Your task to perform on an android device: change the upload size in google photos Image 0: 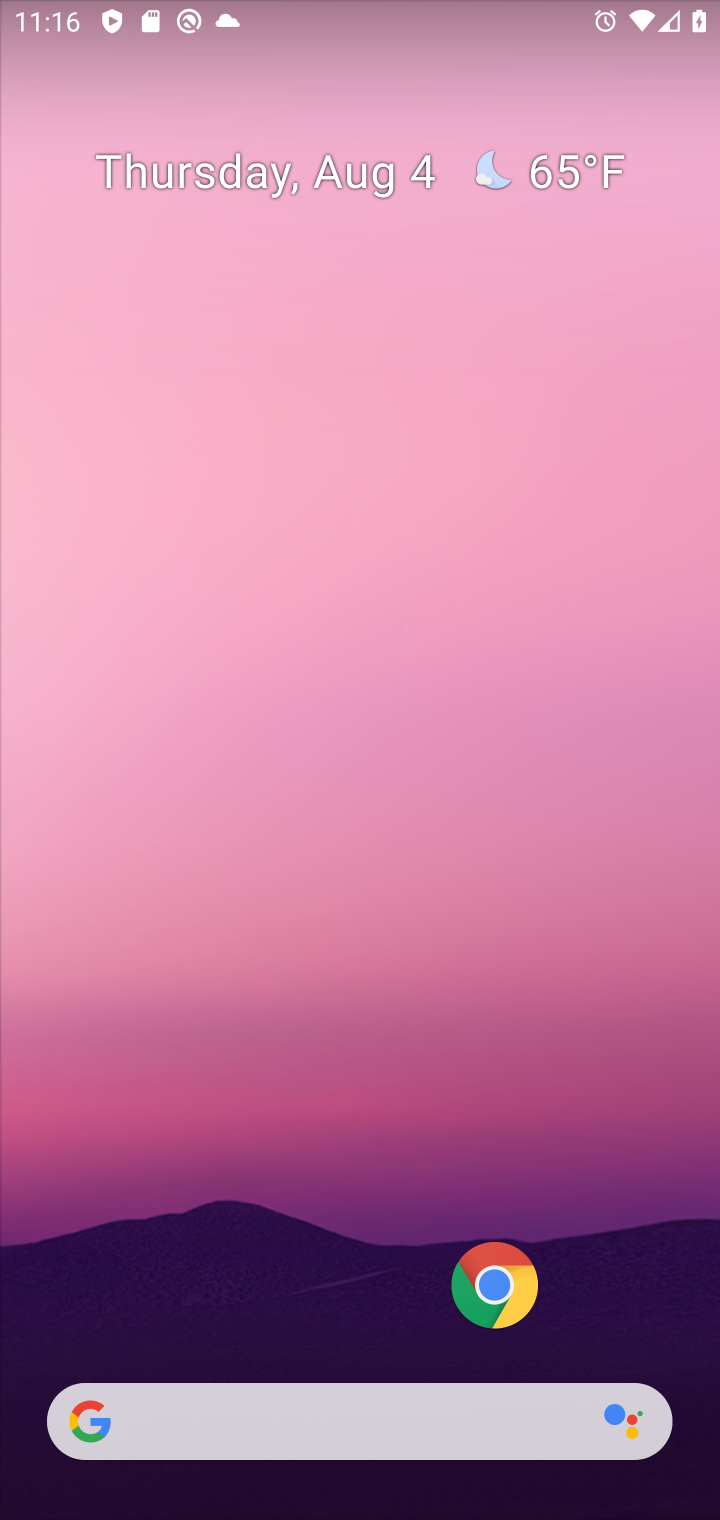
Step 0: drag from (241, 1245) to (332, 513)
Your task to perform on an android device: change the upload size in google photos Image 1: 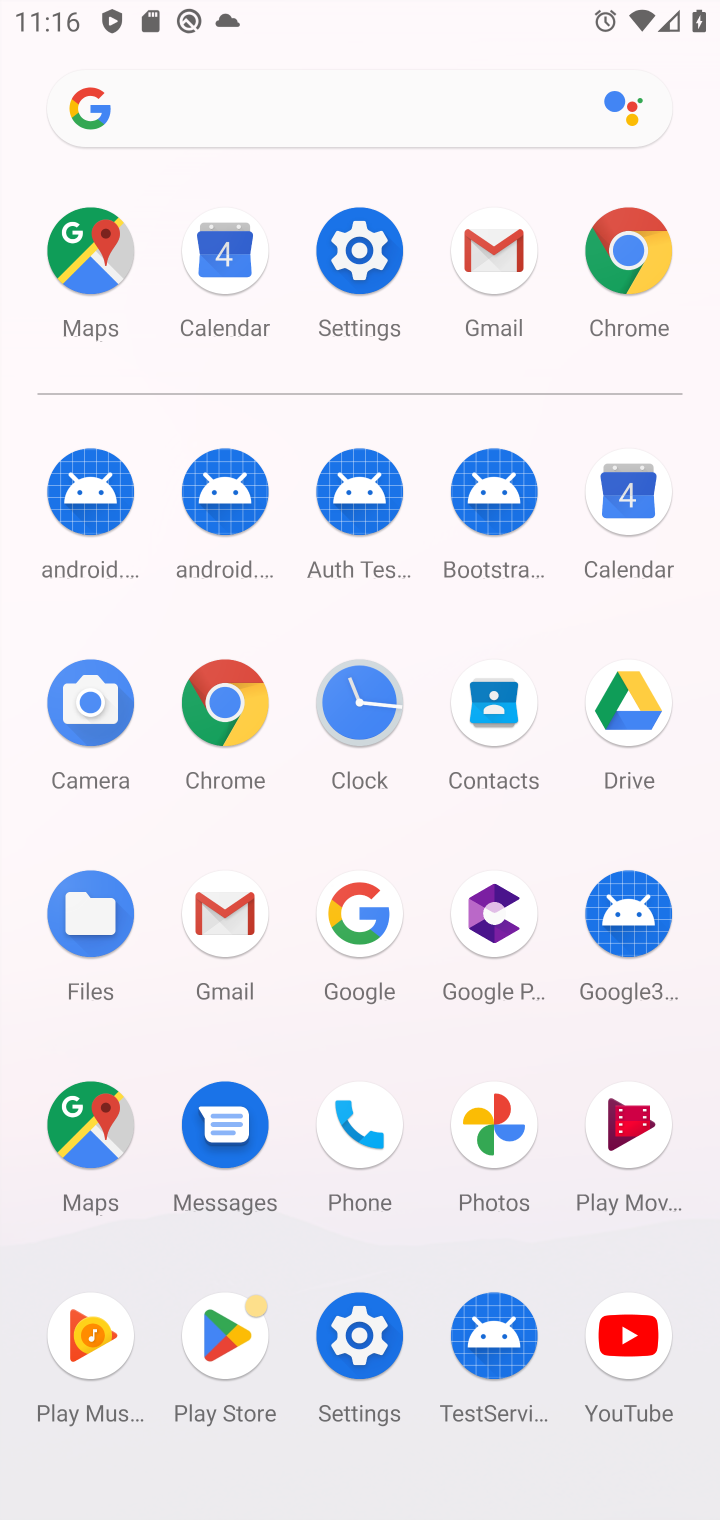
Step 1: click (482, 1126)
Your task to perform on an android device: change the upload size in google photos Image 2: 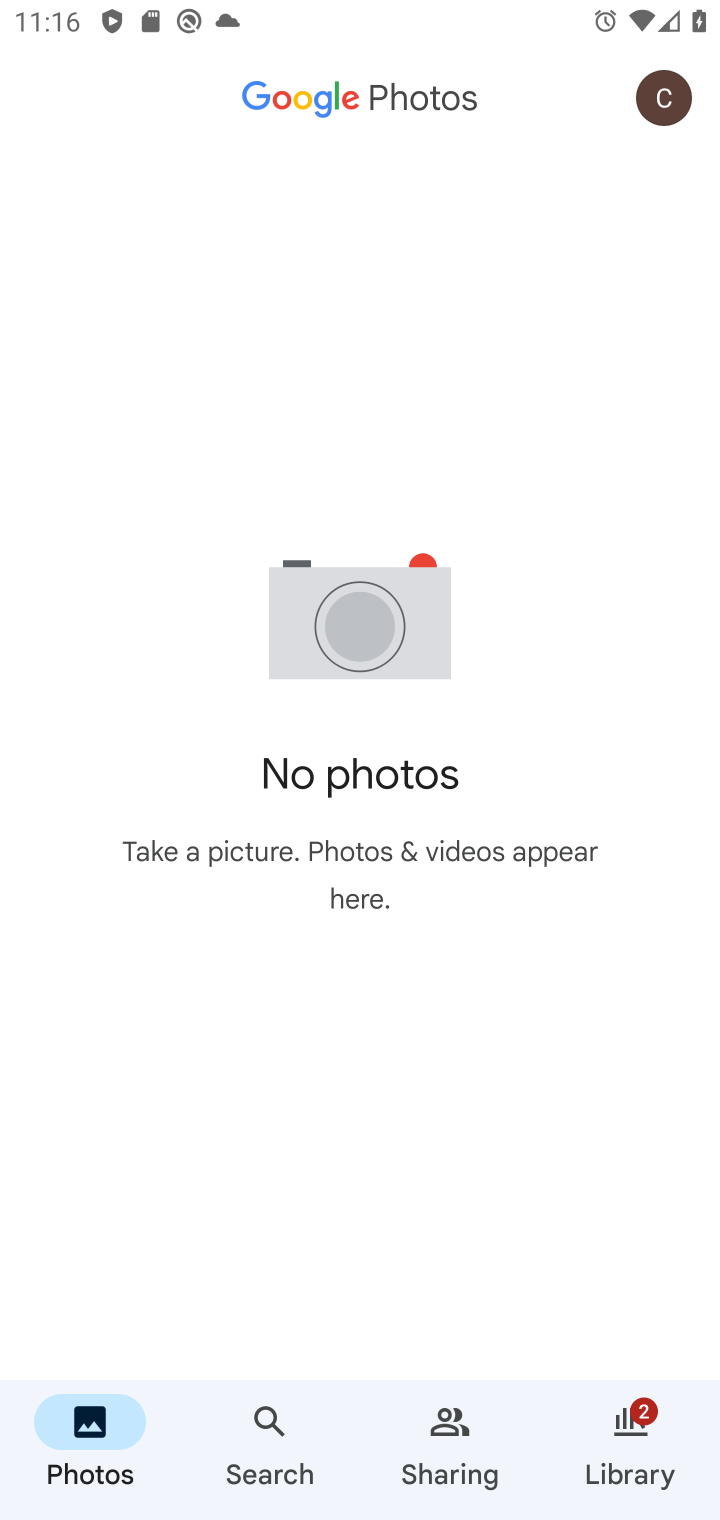
Step 2: click (676, 103)
Your task to perform on an android device: change the upload size in google photos Image 3: 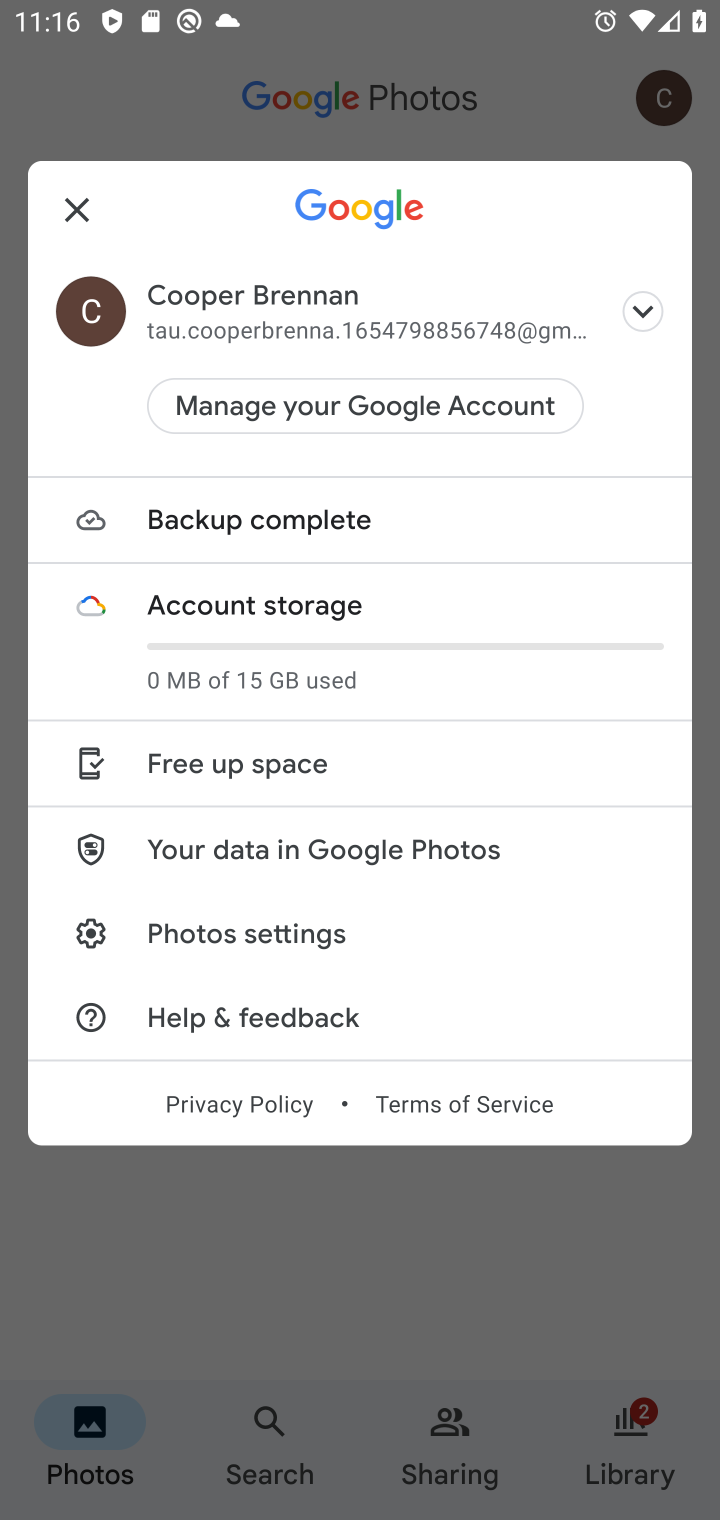
Step 3: click (211, 952)
Your task to perform on an android device: change the upload size in google photos Image 4: 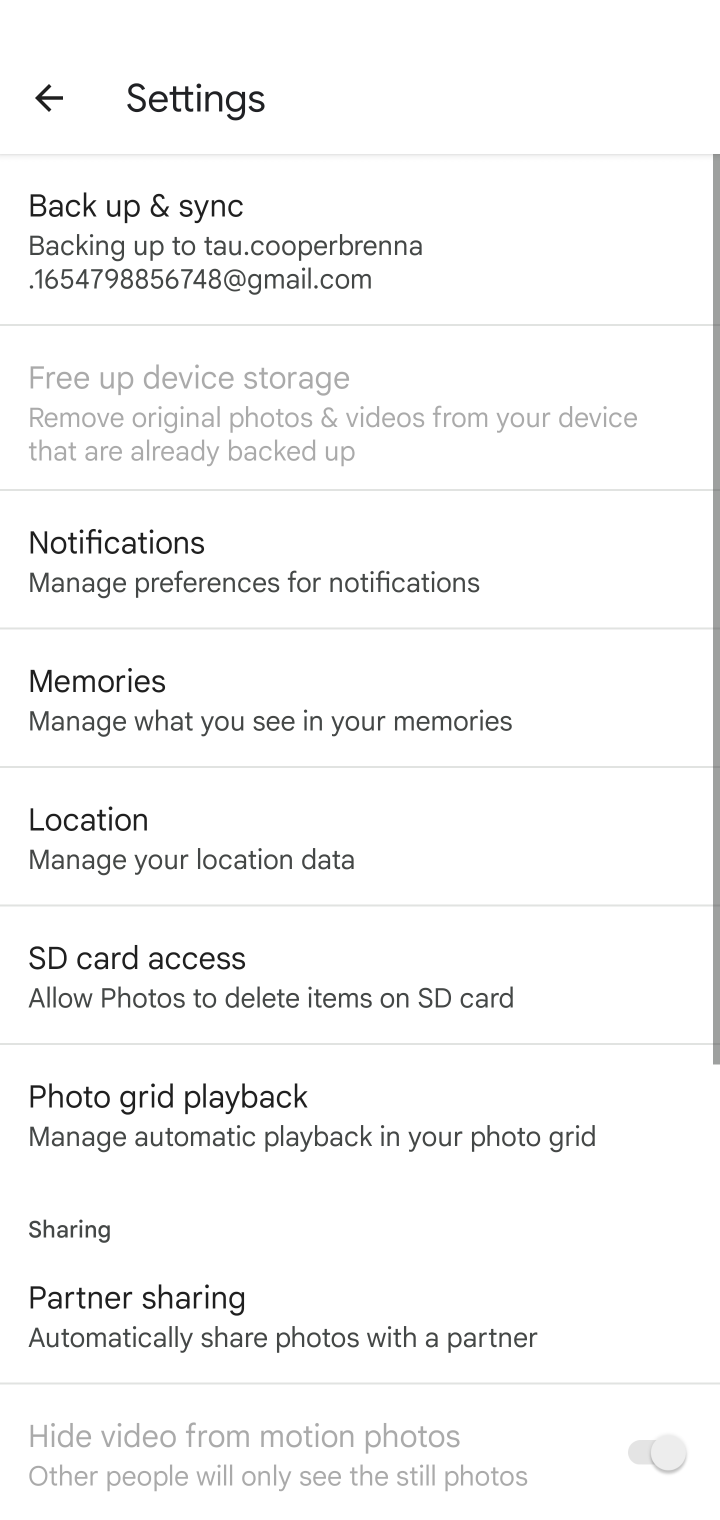
Step 4: click (251, 196)
Your task to perform on an android device: change the upload size in google photos Image 5: 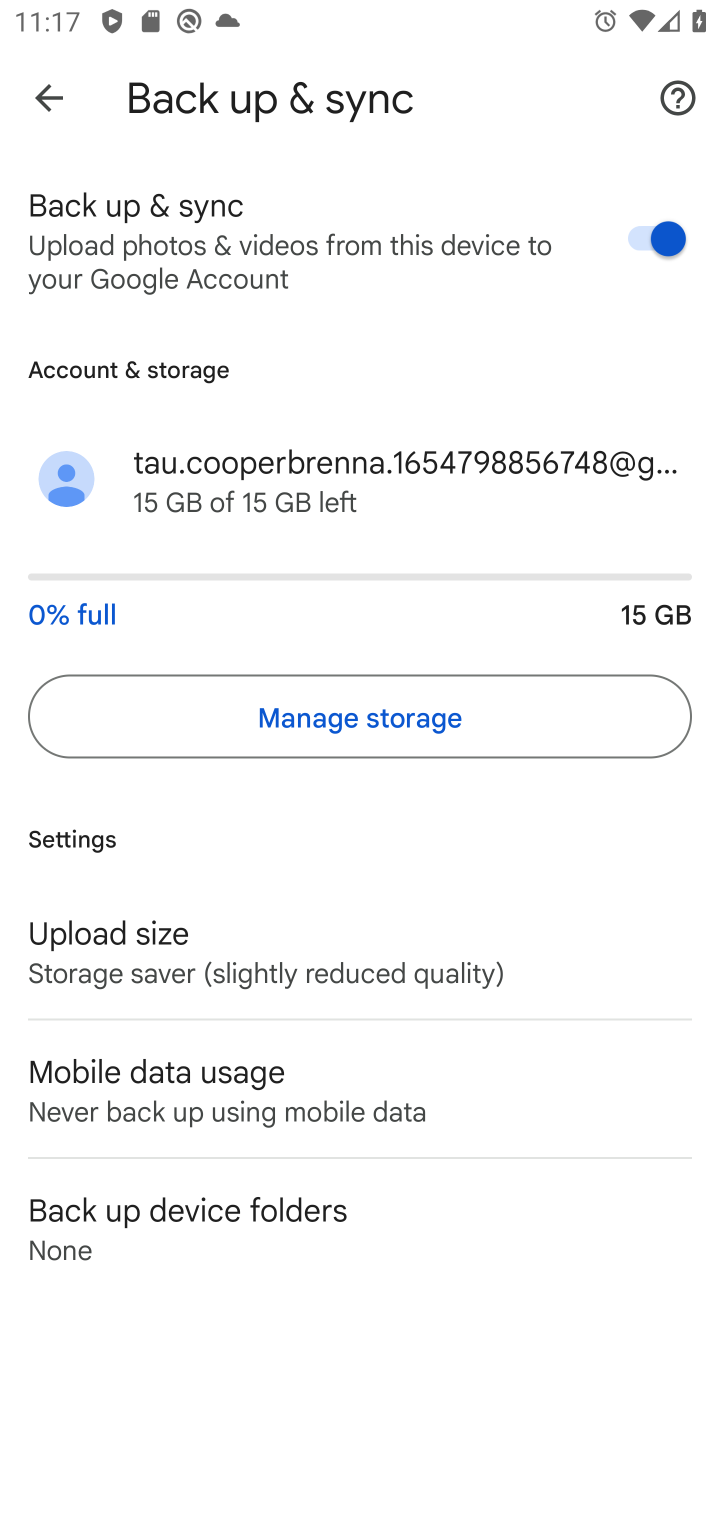
Step 5: click (140, 949)
Your task to perform on an android device: change the upload size in google photos Image 6: 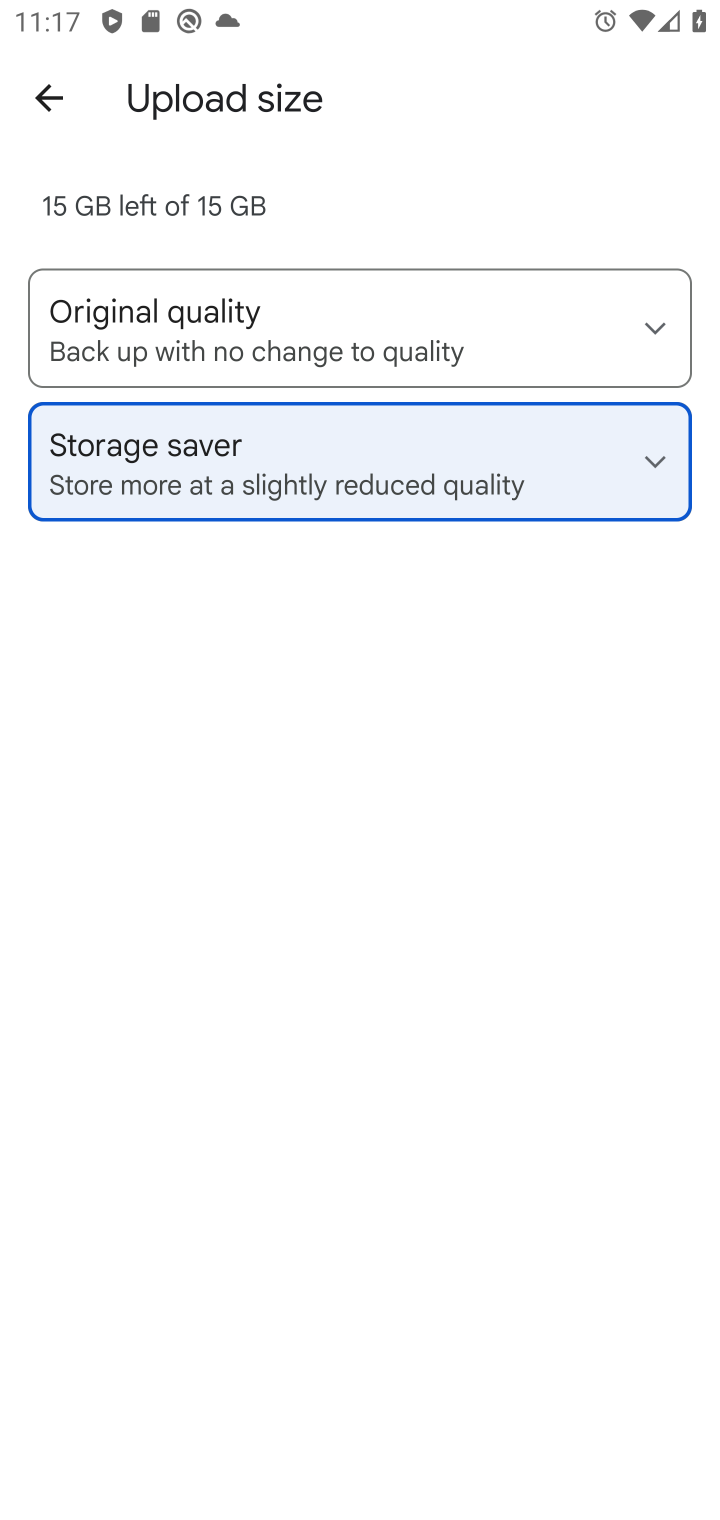
Step 6: click (299, 317)
Your task to perform on an android device: change the upload size in google photos Image 7: 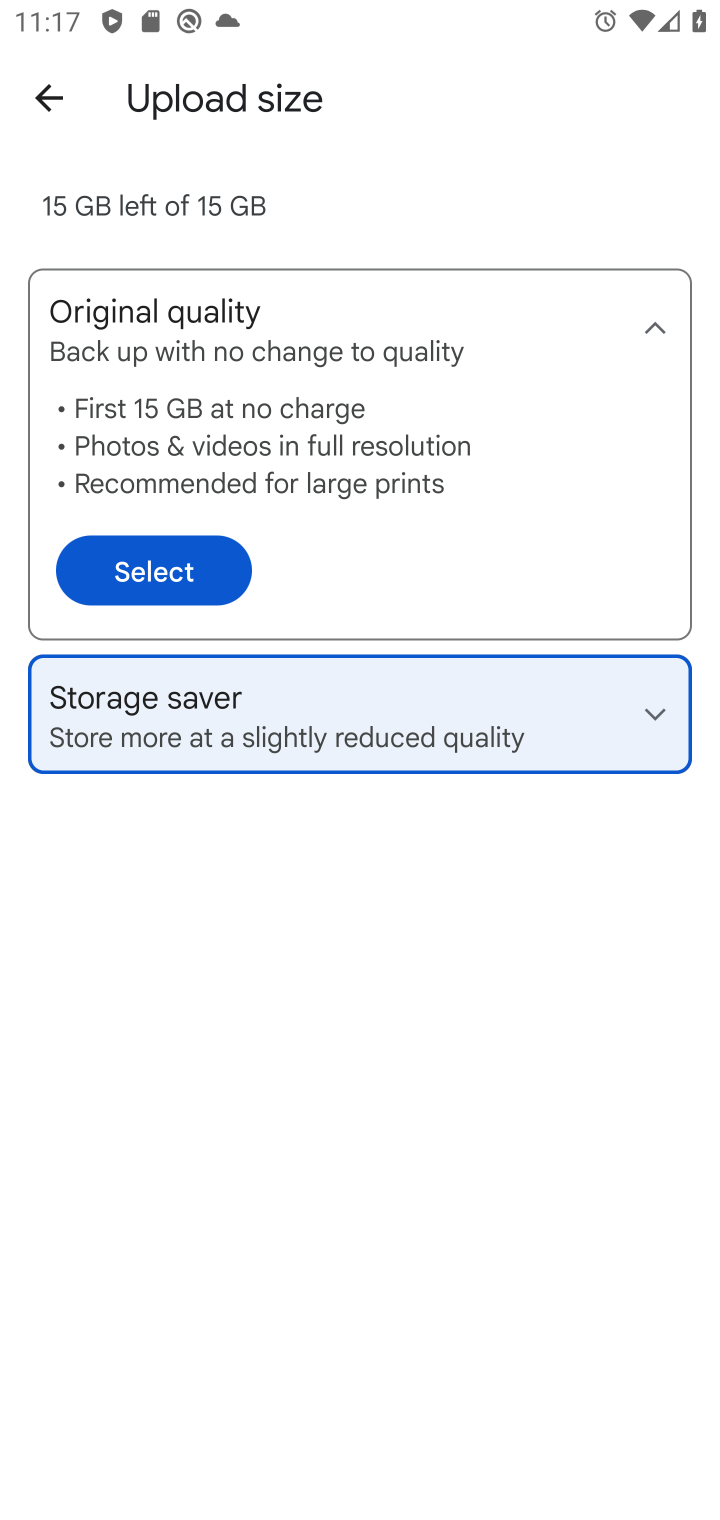
Step 7: click (154, 553)
Your task to perform on an android device: change the upload size in google photos Image 8: 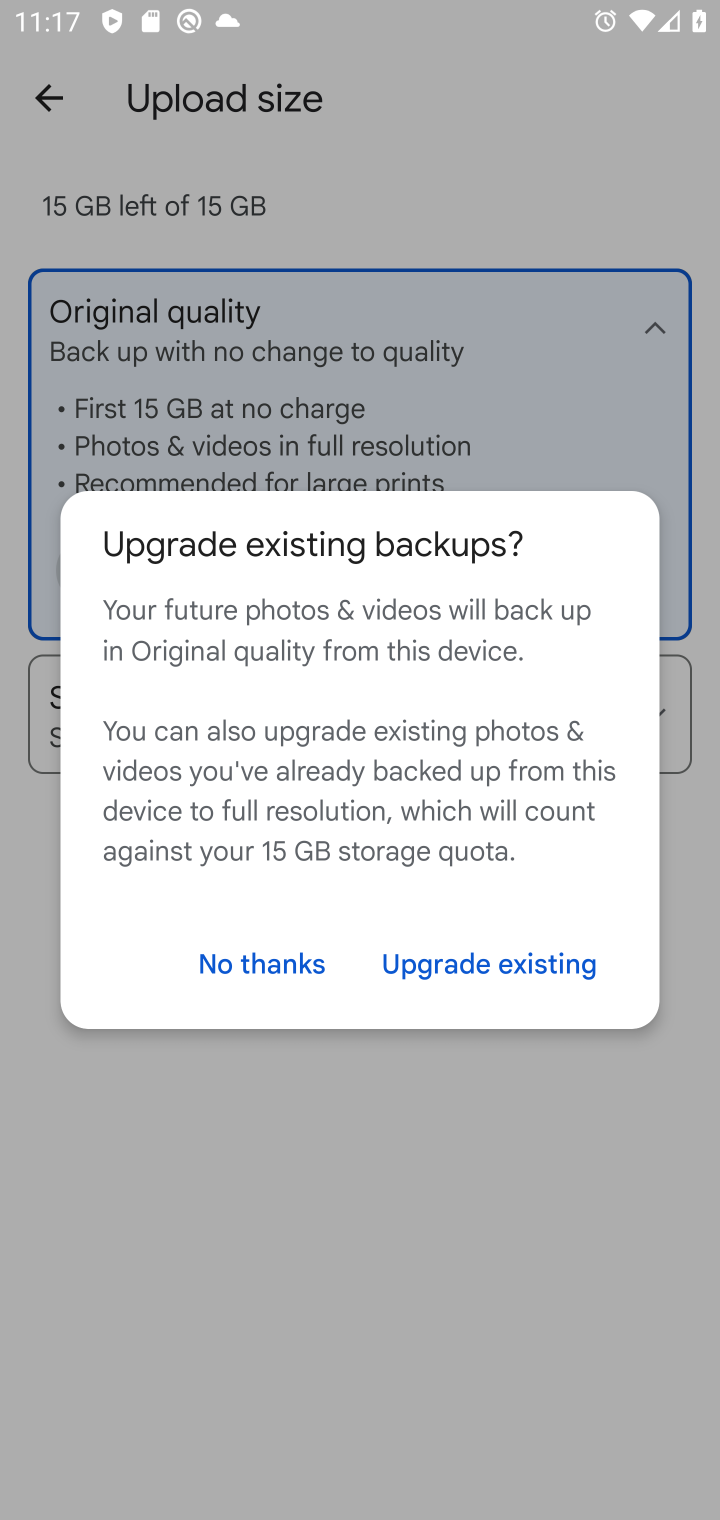
Step 8: click (444, 954)
Your task to perform on an android device: change the upload size in google photos Image 9: 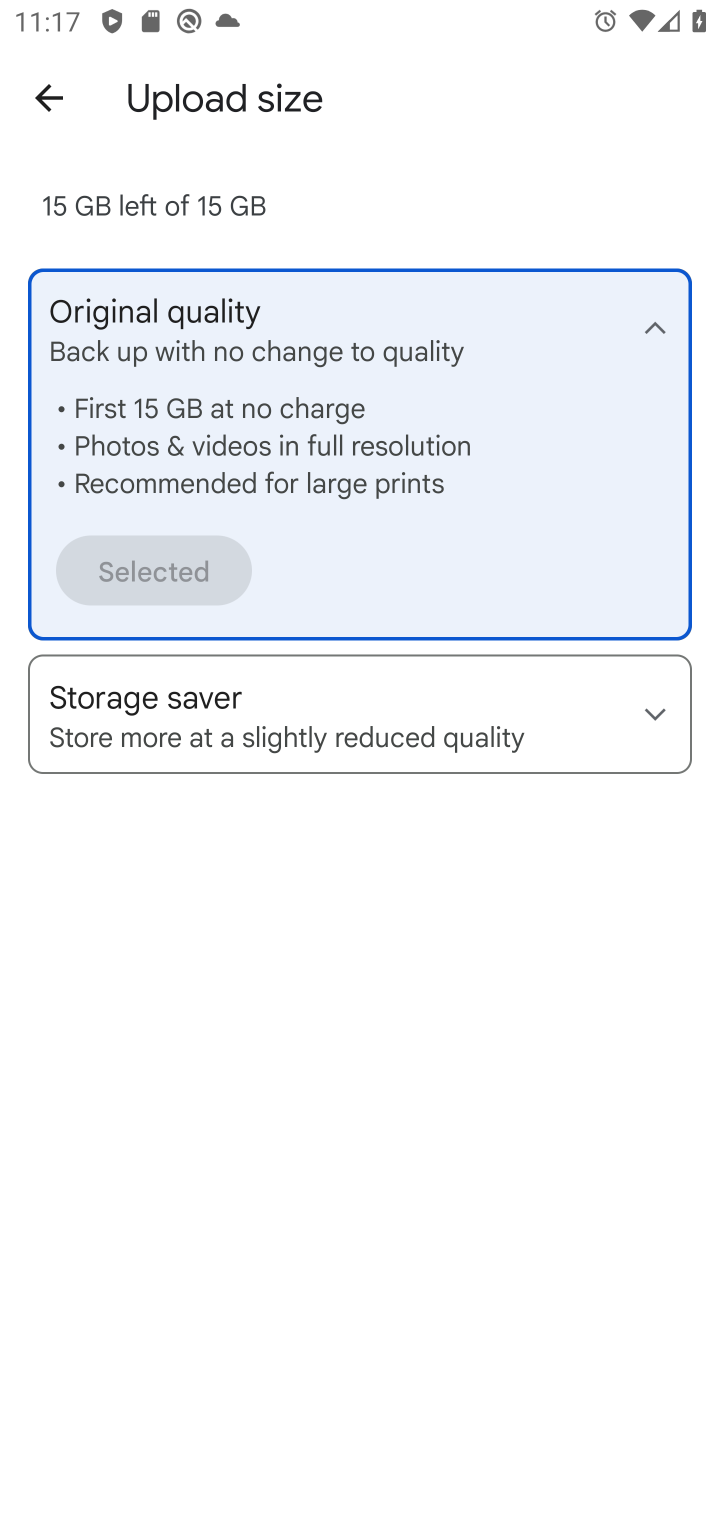
Step 9: task complete